Your task to perform on an android device: Show the shopping cart on amazon.com. Add dell alienware to the cart on amazon.com, then select checkout. Image 0: 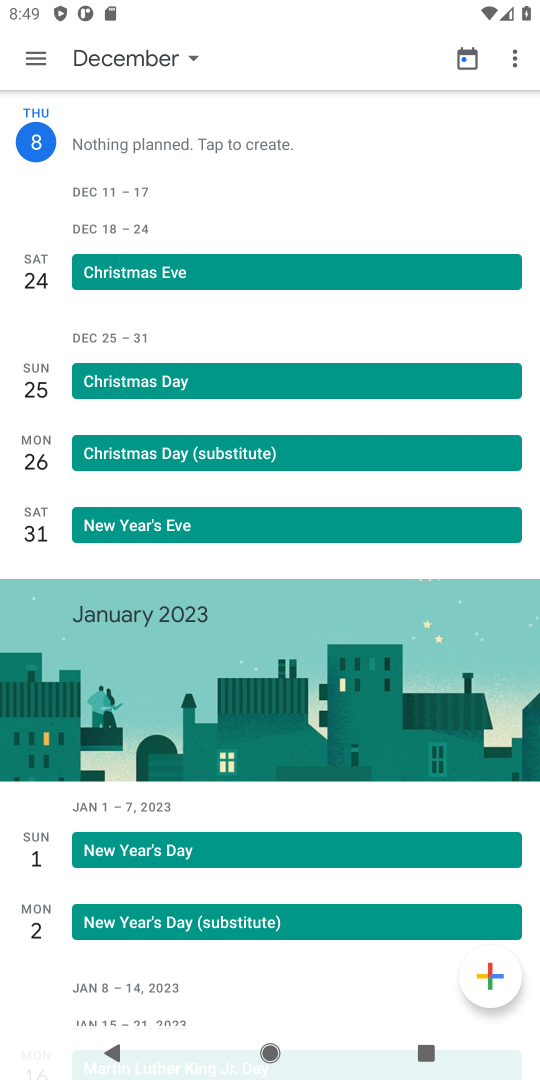
Step 0: press home button
Your task to perform on an android device: Show the shopping cart on amazon.com. Add dell alienware to the cart on amazon.com, then select checkout. Image 1: 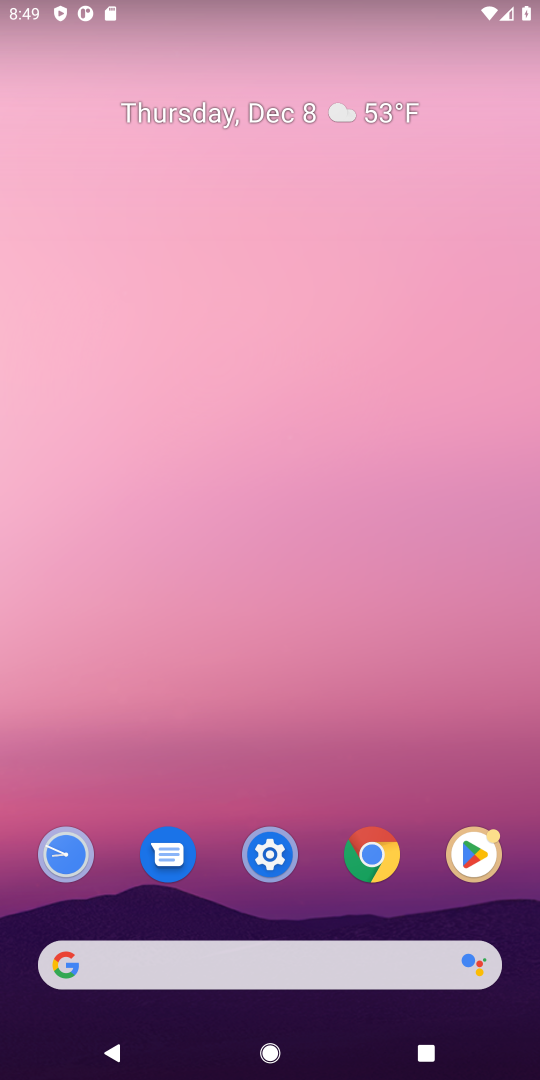
Step 1: click (99, 964)
Your task to perform on an android device: Show the shopping cart on amazon.com. Add dell alienware to the cart on amazon.com, then select checkout. Image 2: 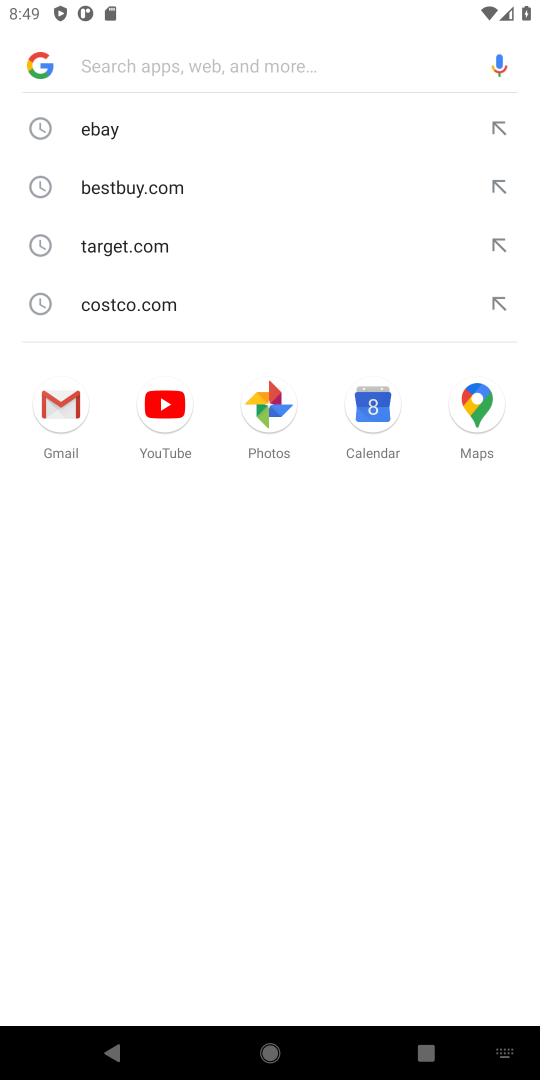
Step 2: type "amazon.com"
Your task to perform on an android device: Show the shopping cart on amazon.com. Add dell alienware to the cart on amazon.com, then select checkout. Image 3: 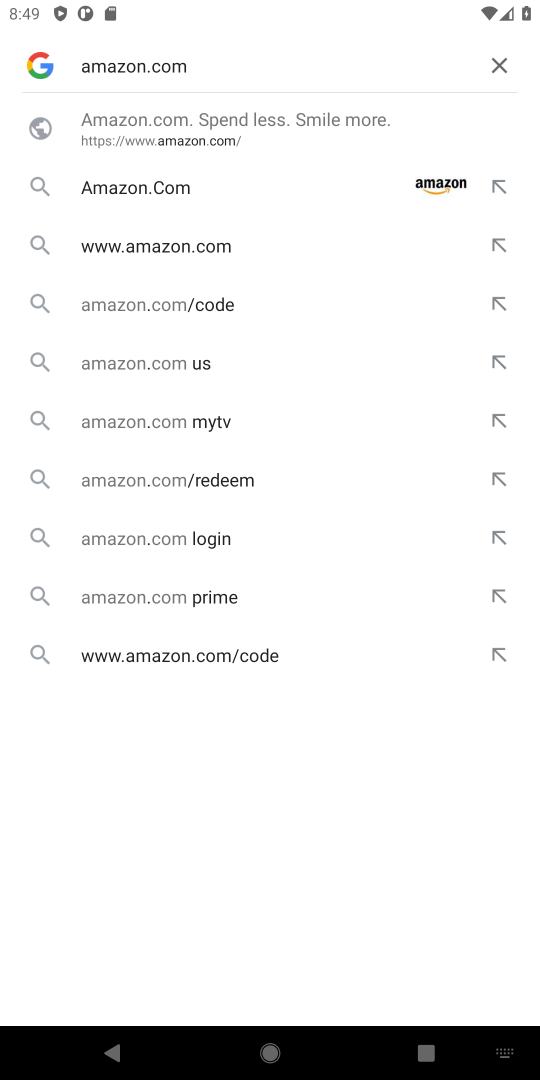
Step 3: press enter
Your task to perform on an android device: Show the shopping cart on amazon.com. Add dell alienware to the cart on amazon.com, then select checkout. Image 4: 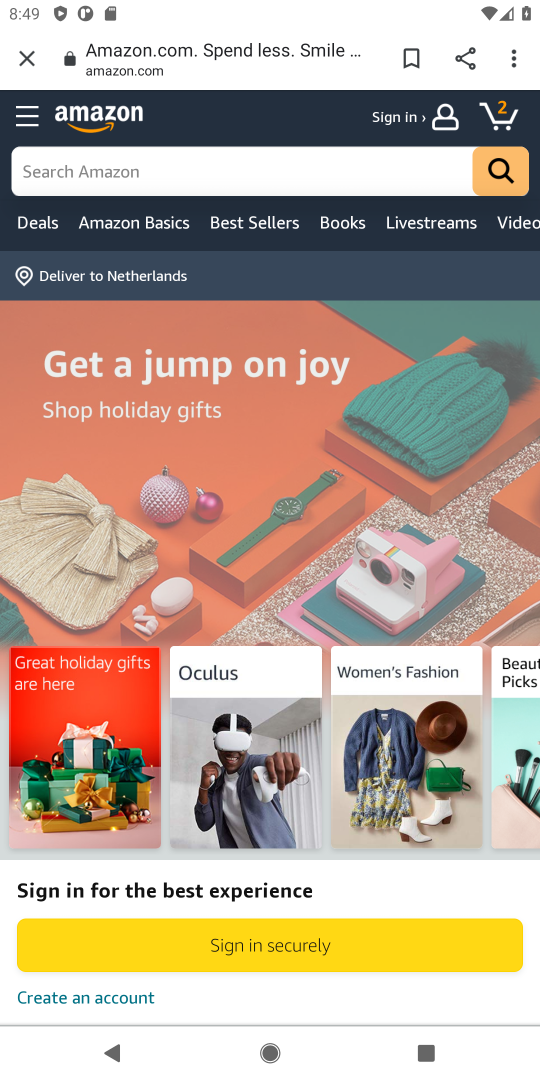
Step 4: click (506, 109)
Your task to perform on an android device: Show the shopping cart on amazon.com. Add dell alienware to the cart on amazon.com, then select checkout. Image 5: 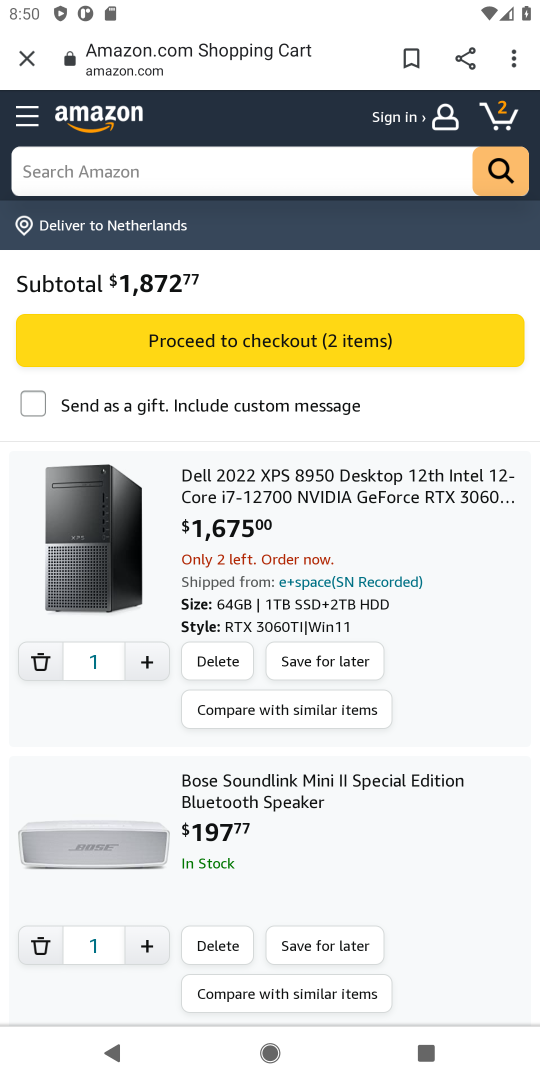
Step 5: click (99, 171)
Your task to perform on an android device: Show the shopping cart on amazon.com. Add dell alienware to the cart on amazon.com, then select checkout. Image 6: 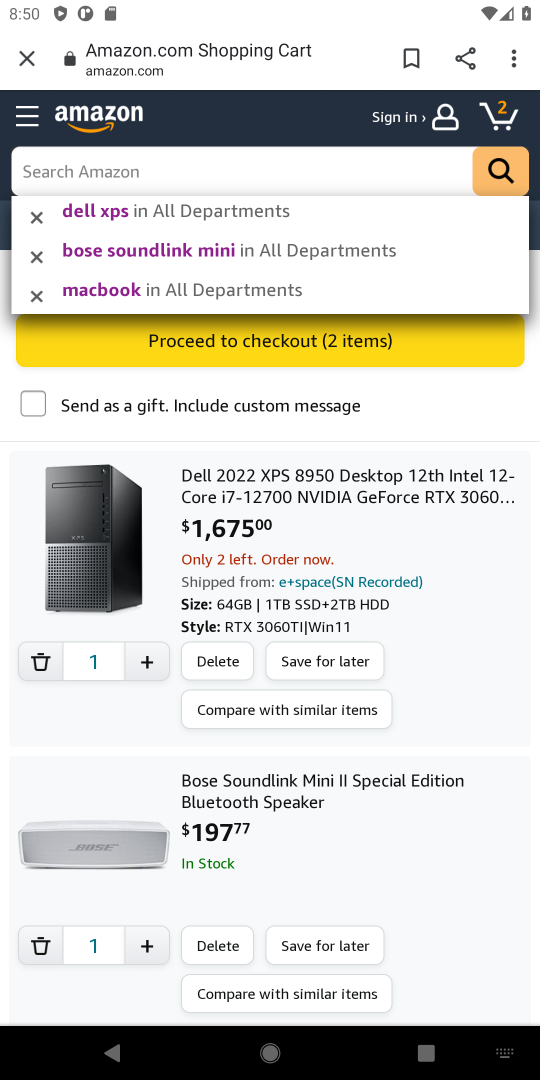
Step 6: type "dell alienware"
Your task to perform on an android device: Show the shopping cart on amazon.com. Add dell alienware to the cart on amazon.com, then select checkout. Image 7: 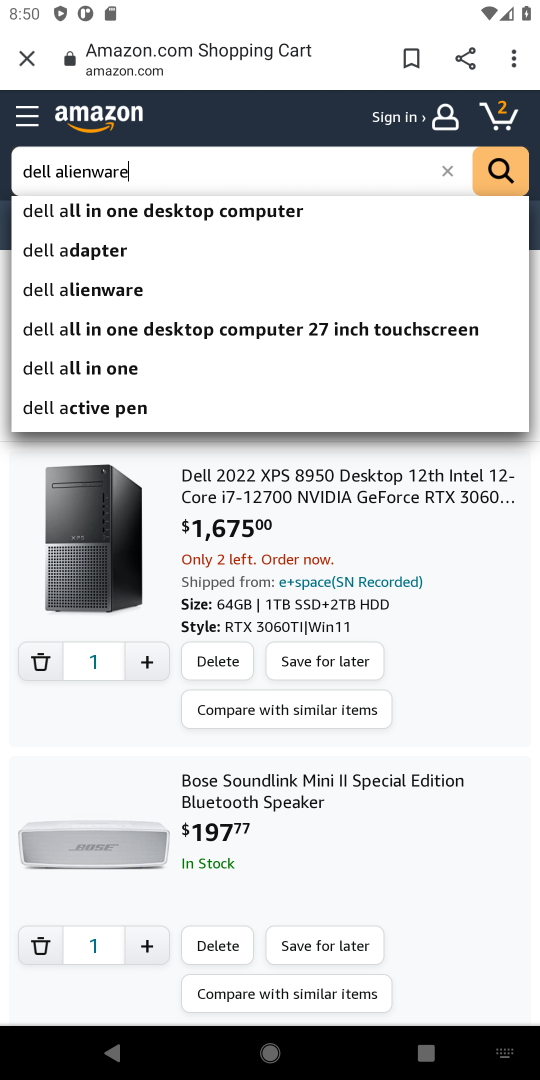
Step 7: press enter
Your task to perform on an android device: Show the shopping cart on amazon.com. Add dell alienware to the cart on amazon.com, then select checkout. Image 8: 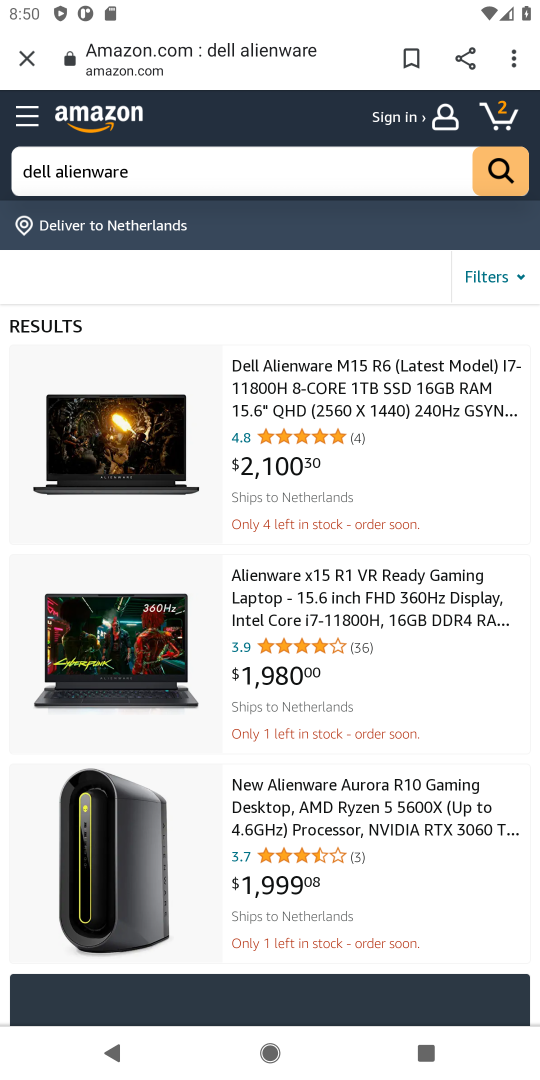
Step 8: click (309, 404)
Your task to perform on an android device: Show the shopping cart on amazon.com. Add dell alienware to the cart on amazon.com, then select checkout. Image 9: 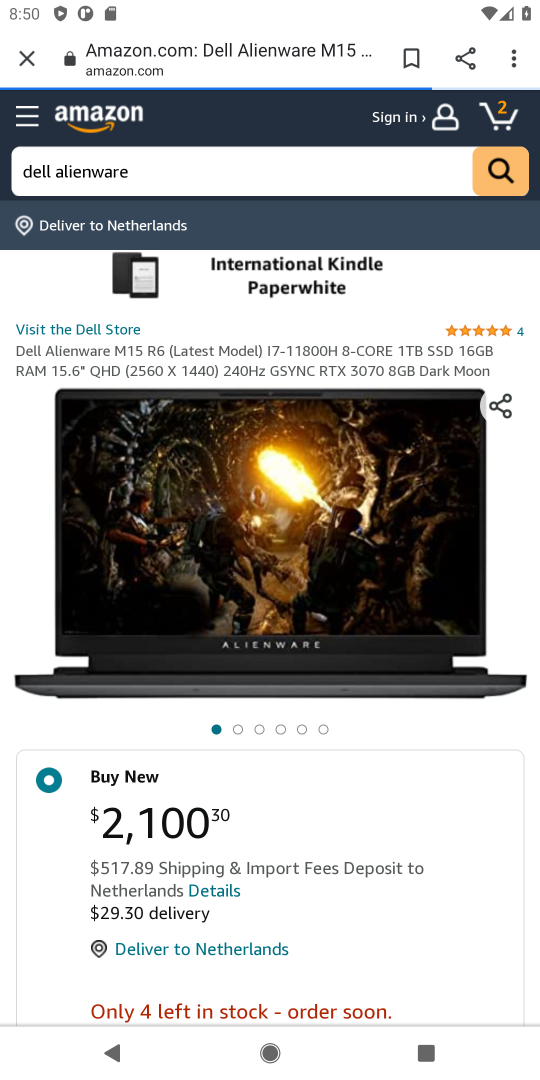
Step 9: drag from (369, 876) to (353, 334)
Your task to perform on an android device: Show the shopping cart on amazon.com. Add dell alienware to the cart on amazon.com, then select checkout. Image 10: 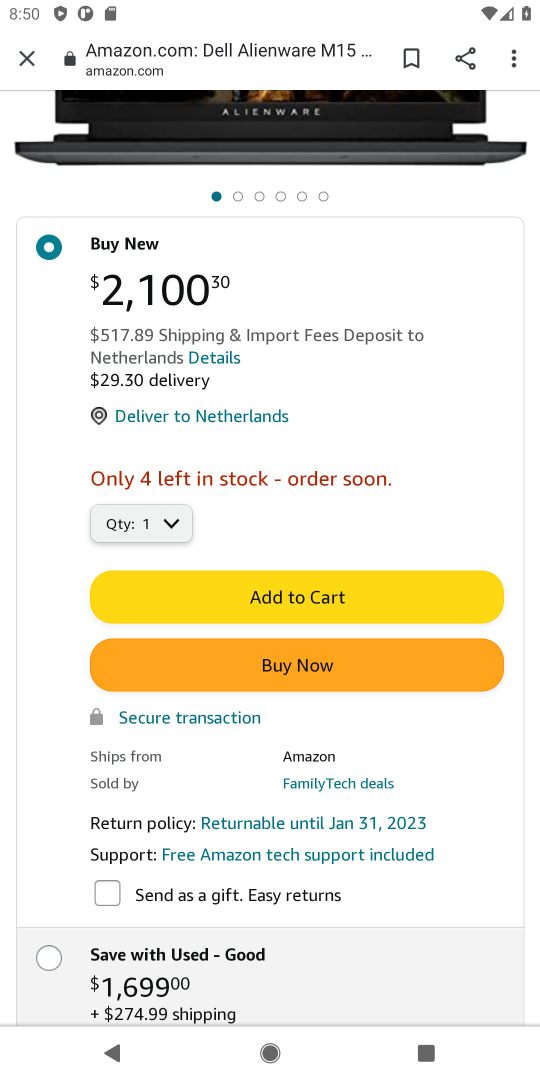
Step 10: click (273, 600)
Your task to perform on an android device: Show the shopping cart on amazon.com. Add dell alienware to the cart on amazon.com, then select checkout. Image 11: 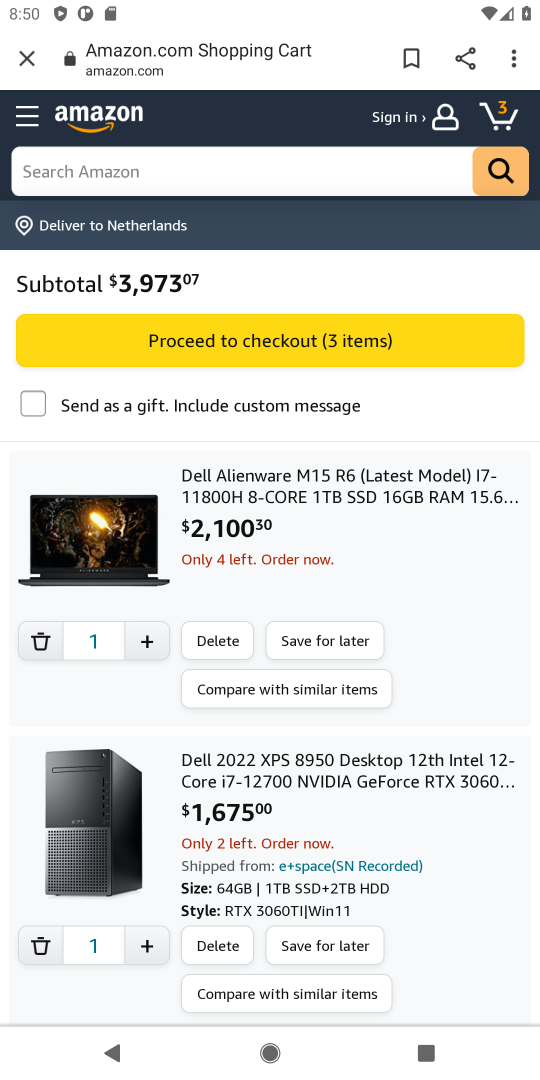
Step 11: click (254, 346)
Your task to perform on an android device: Show the shopping cart on amazon.com. Add dell alienware to the cart on amazon.com, then select checkout. Image 12: 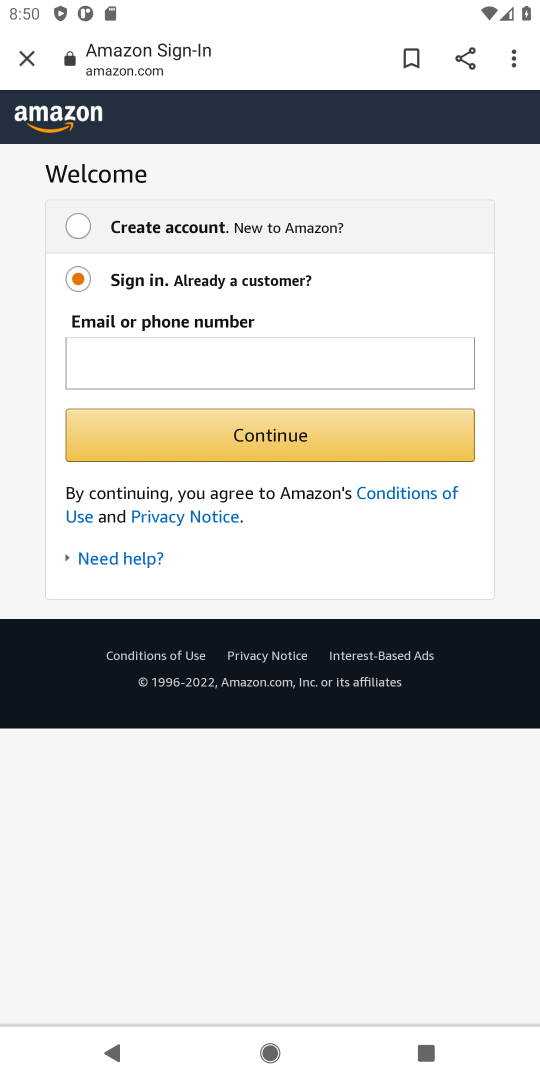
Step 12: task complete